Your task to perform on an android device: turn off picture-in-picture Image 0: 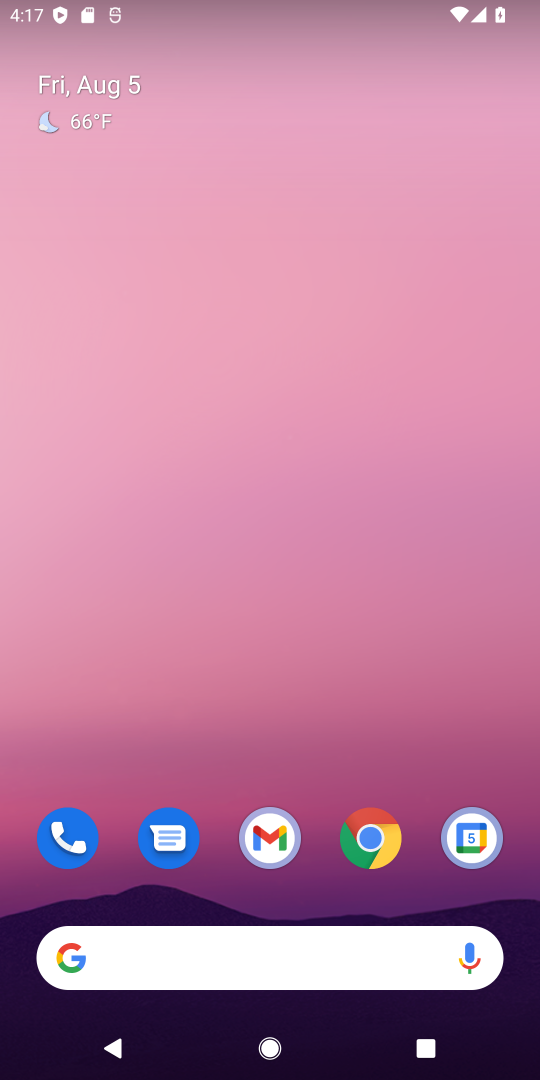
Step 0: drag from (369, 925) to (365, 214)
Your task to perform on an android device: turn off picture-in-picture Image 1: 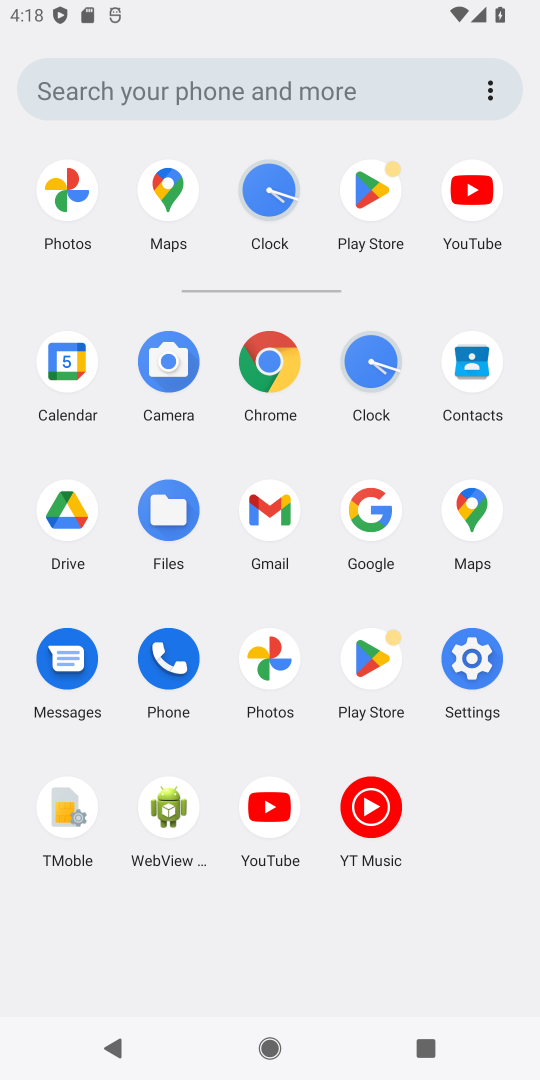
Step 1: click (463, 646)
Your task to perform on an android device: turn off picture-in-picture Image 2: 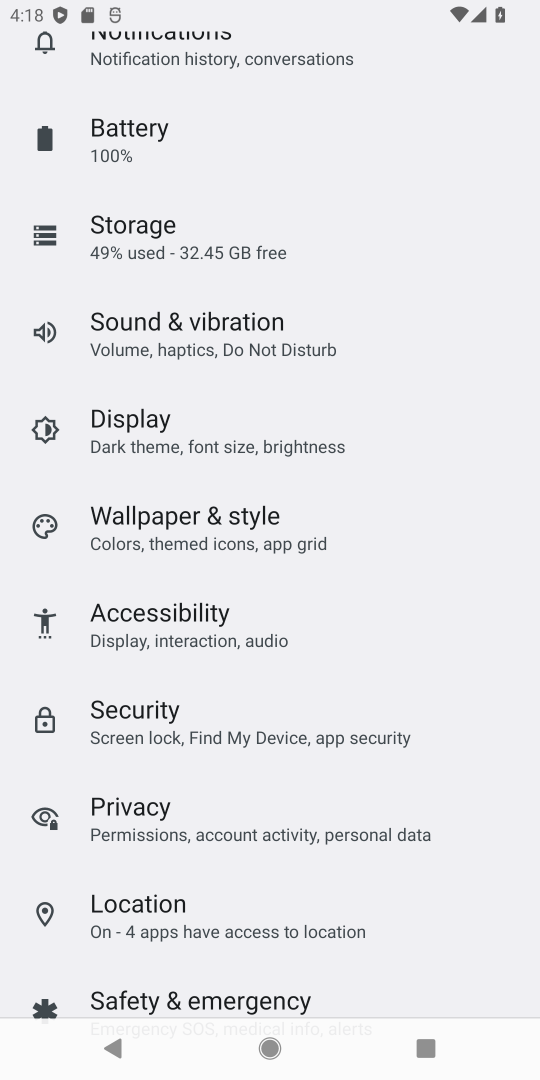
Step 2: drag from (197, 169) to (220, 1063)
Your task to perform on an android device: turn off picture-in-picture Image 3: 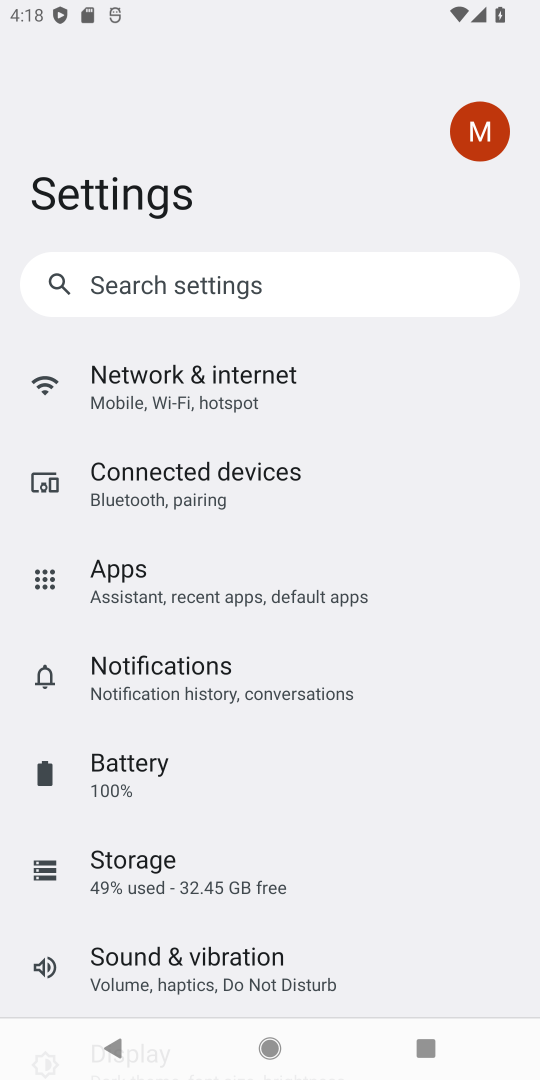
Step 3: click (224, 636)
Your task to perform on an android device: turn off picture-in-picture Image 4: 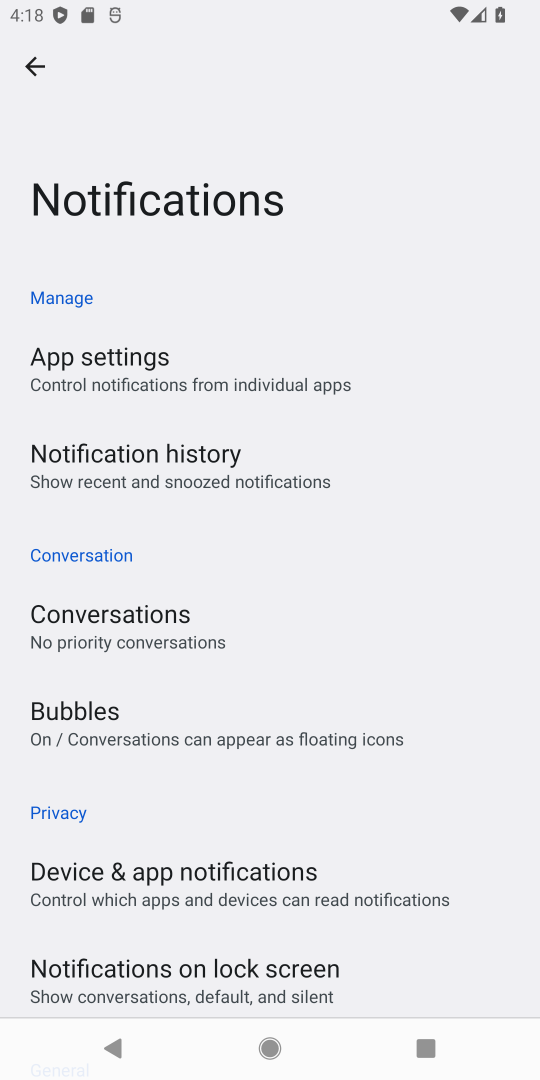
Step 4: click (180, 481)
Your task to perform on an android device: turn off picture-in-picture Image 5: 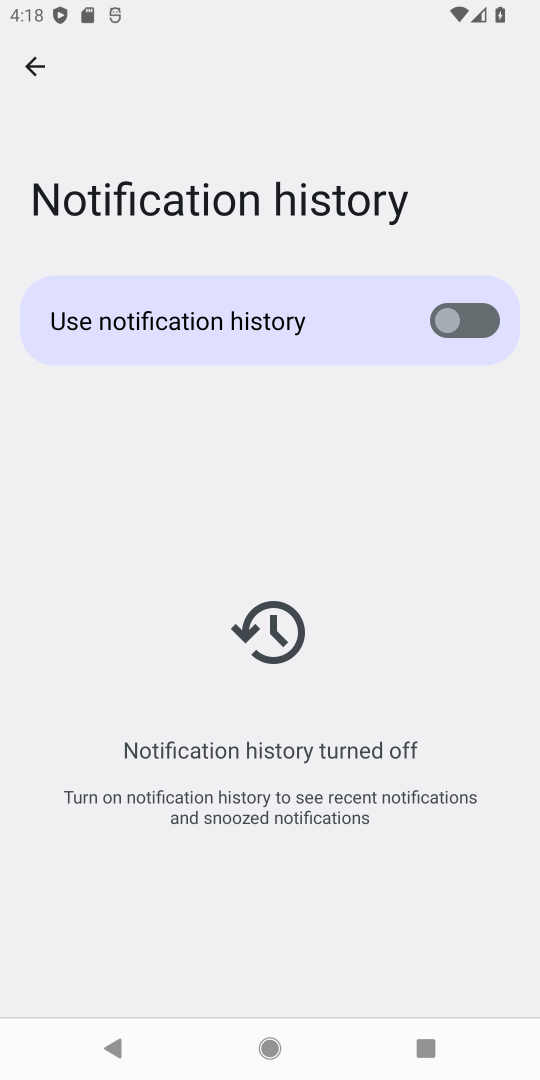
Step 5: click (17, 58)
Your task to perform on an android device: turn off picture-in-picture Image 6: 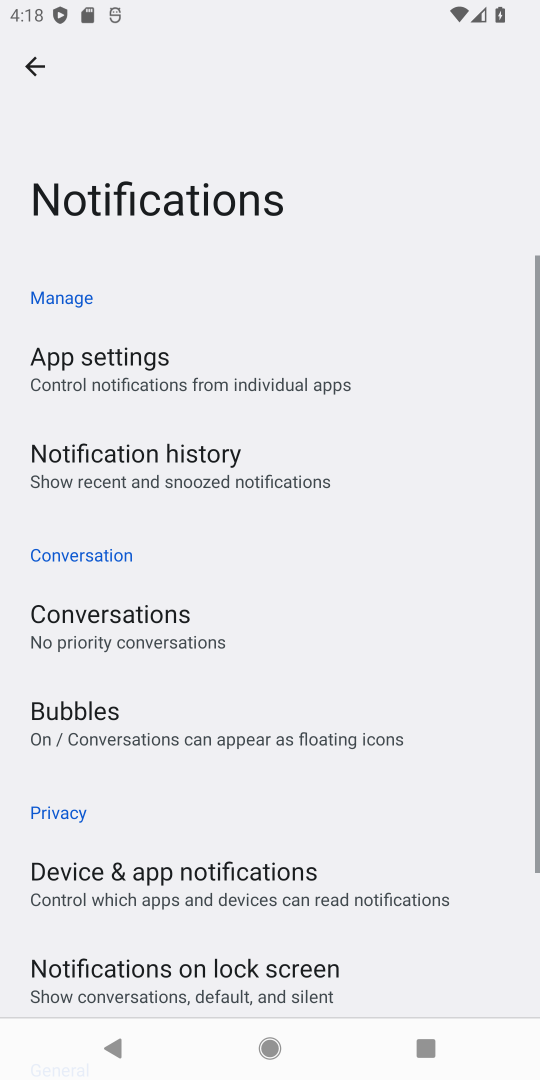
Step 6: drag from (261, 848) to (280, 467)
Your task to perform on an android device: turn off picture-in-picture Image 7: 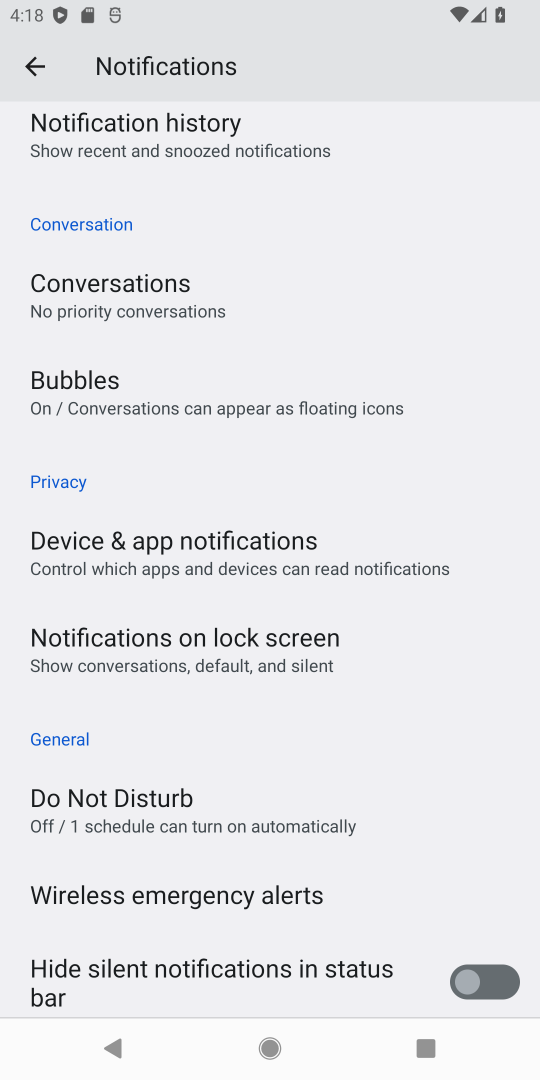
Step 7: click (266, 651)
Your task to perform on an android device: turn off picture-in-picture Image 8: 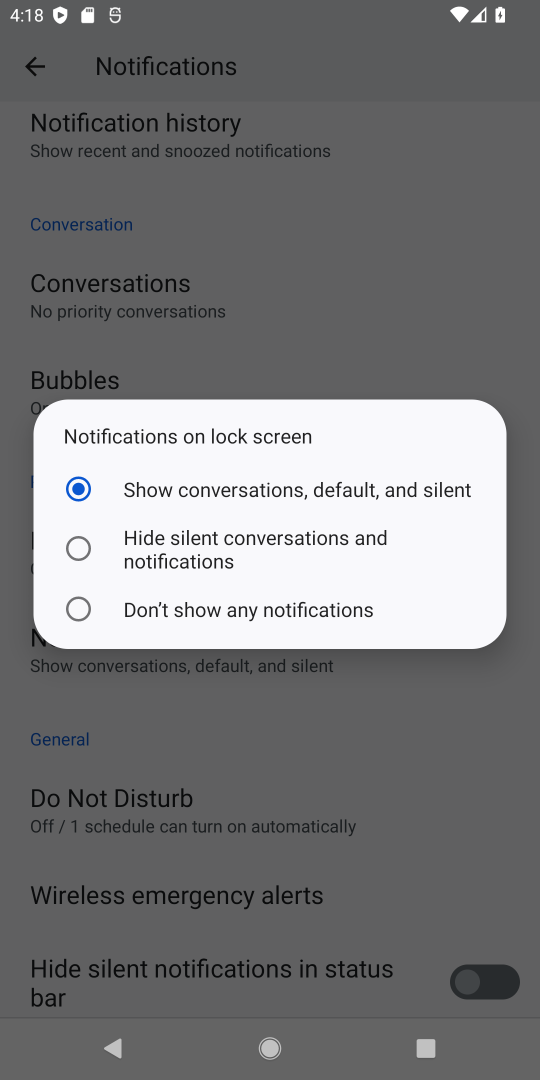
Step 8: click (280, 303)
Your task to perform on an android device: turn off picture-in-picture Image 9: 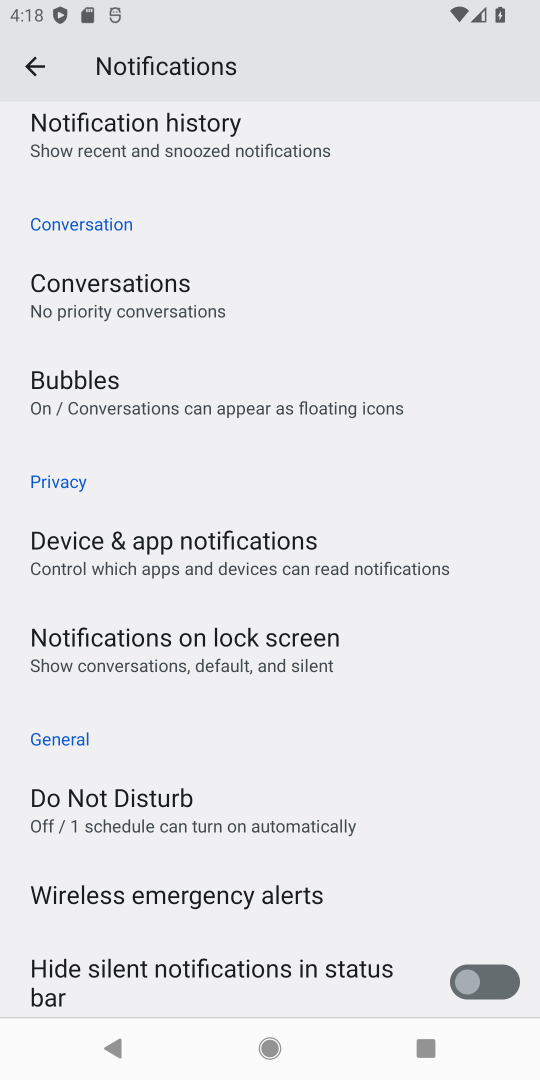
Step 9: drag from (260, 212) to (264, 597)
Your task to perform on an android device: turn off picture-in-picture Image 10: 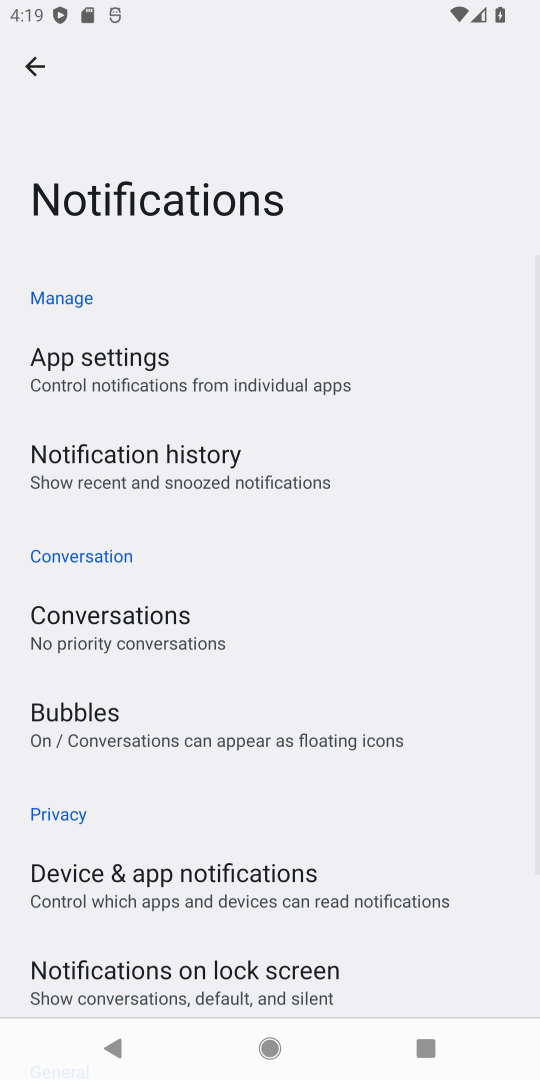
Step 10: click (182, 370)
Your task to perform on an android device: turn off picture-in-picture Image 11: 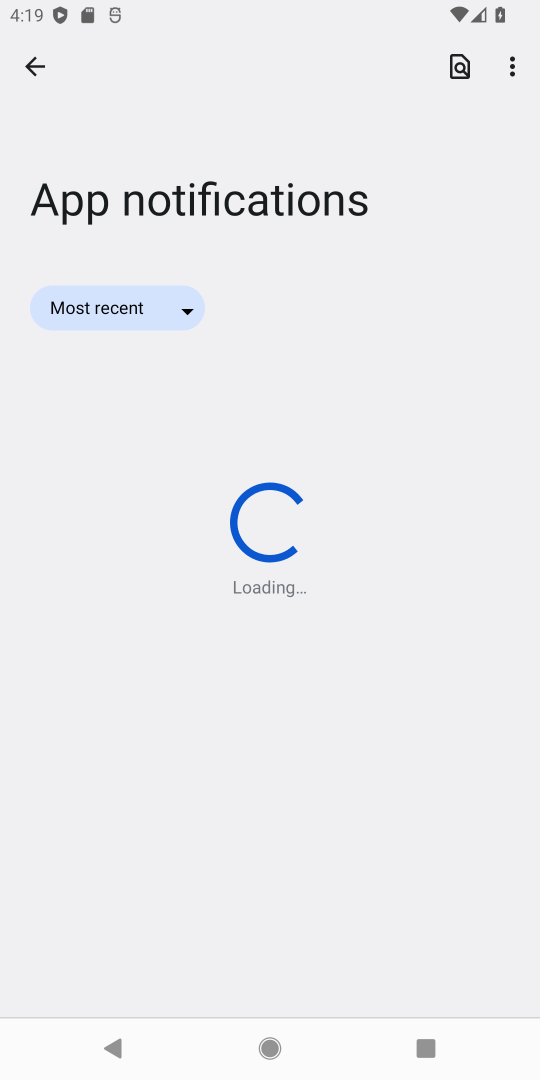
Step 11: drag from (259, 911) to (319, 243)
Your task to perform on an android device: turn off picture-in-picture Image 12: 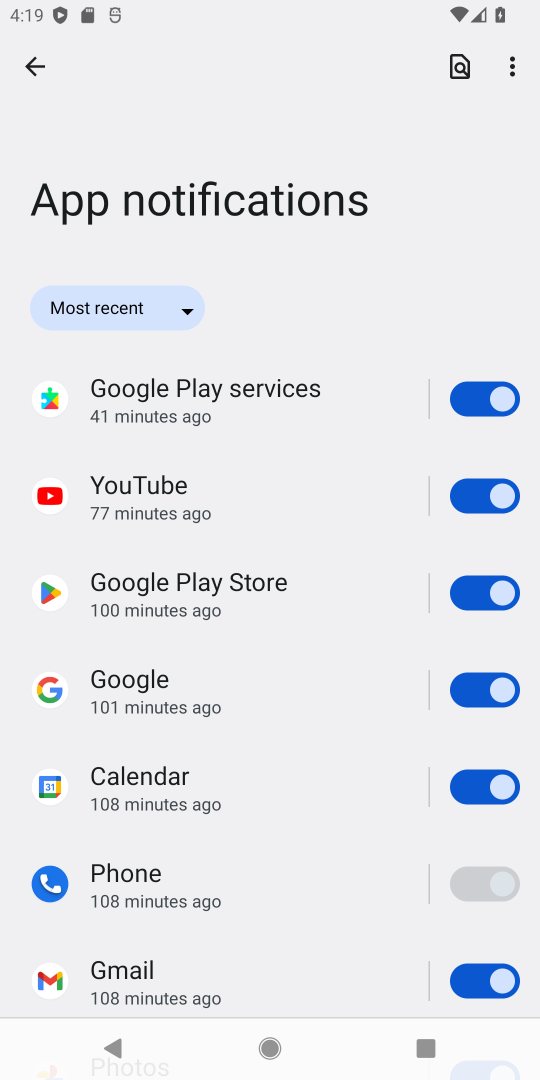
Step 12: click (36, 52)
Your task to perform on an android device: turn off picture-in-picture Image 13: 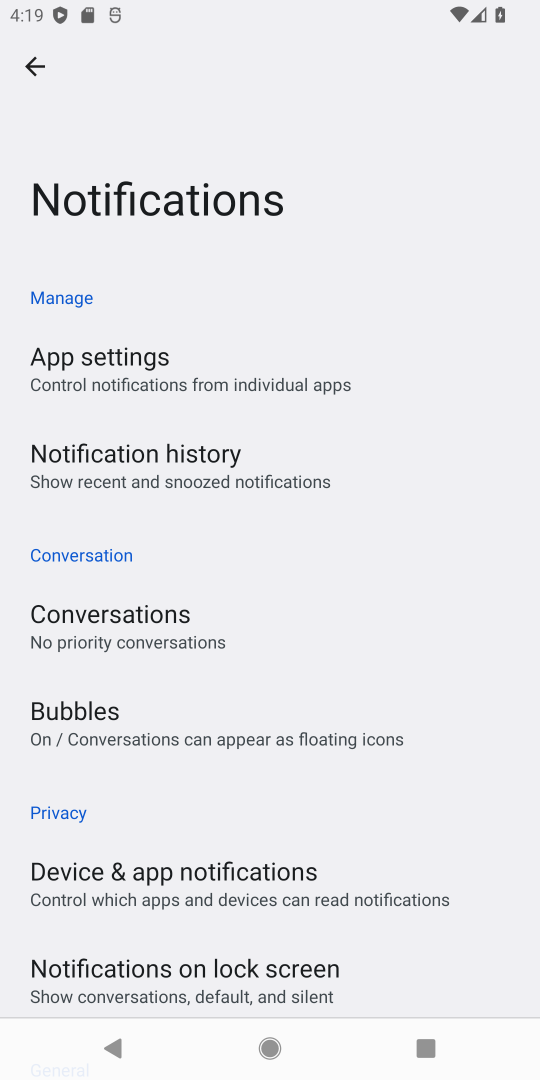
Step 13: click (35, 70)
Your task to perform on an android device: turn off picture-in-picture Image 14: 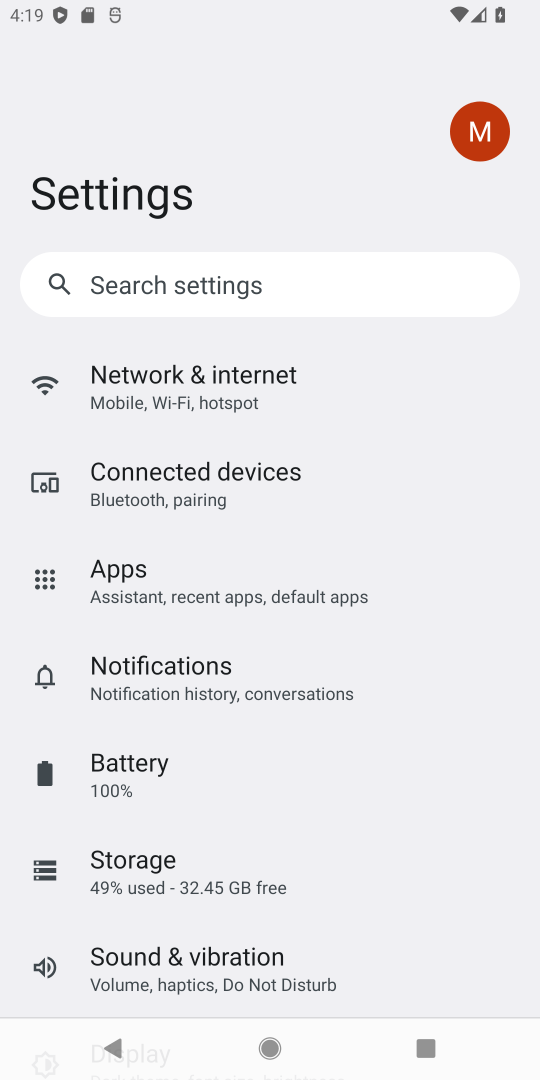
Step 14: click (166, 574)
Your task to perform on an android device: turn off picture-in-picture Image 15: 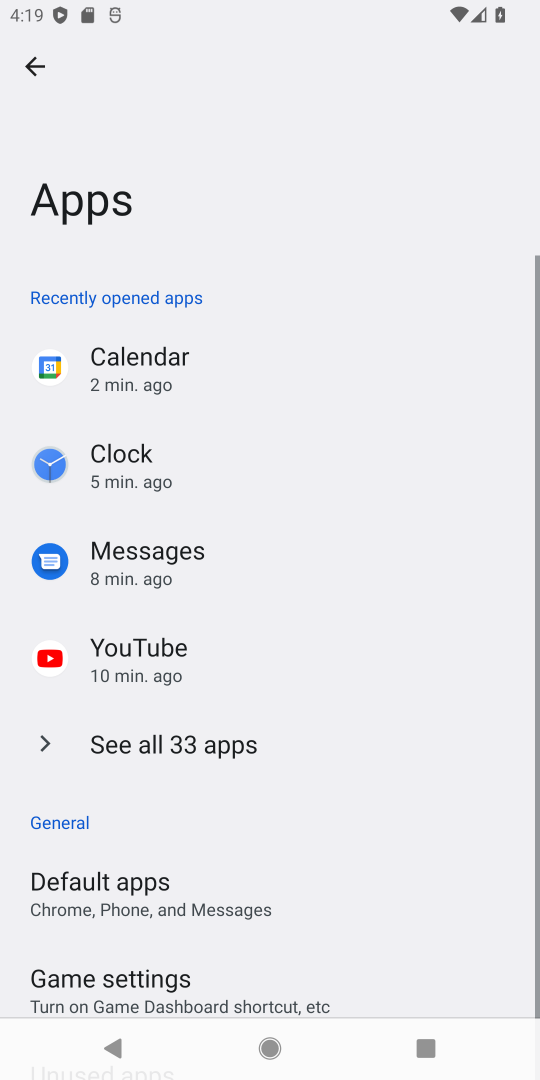
Step 15: drag from (298, 907) to (335, 362)
Your task to perform on an android device: turn off picture-in-picture Image 16: 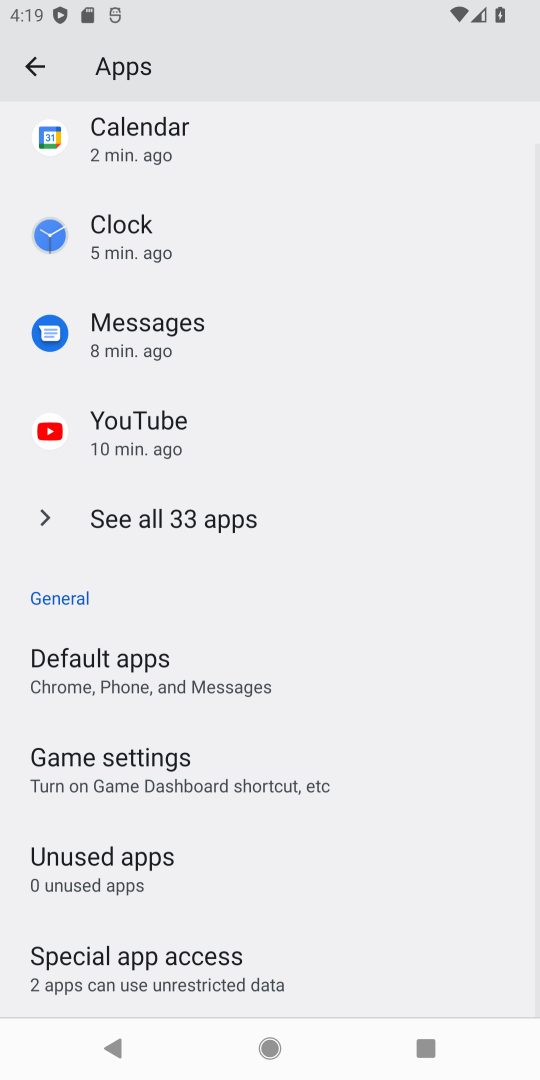
Step 16: click (222, 980)
Your task to perform on an android device: turn off picture-in-picture Image 17: 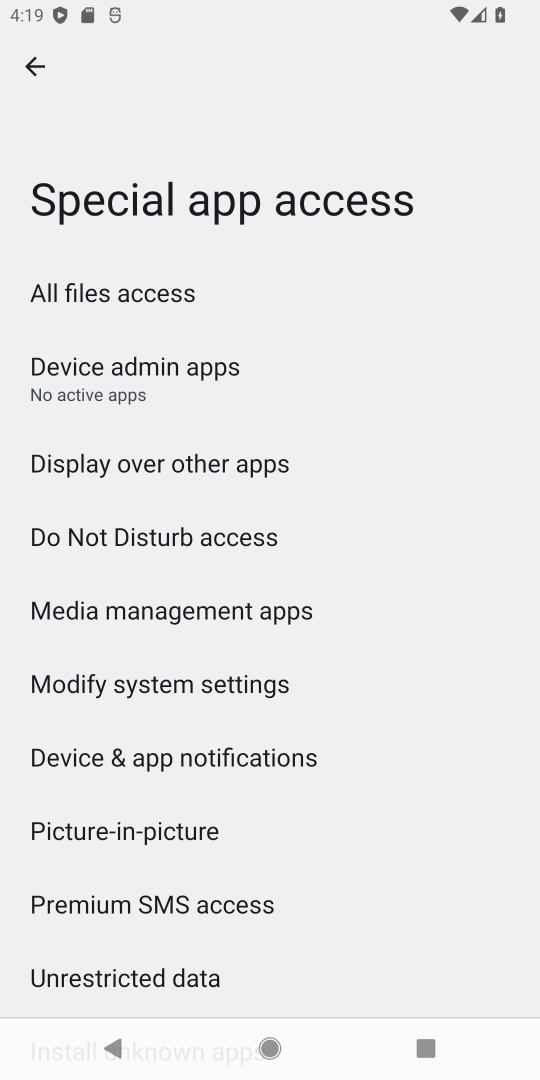
Step 17: click (201, 819)
Your task to perform on an android device: turn off picture-in-picture Image 18: 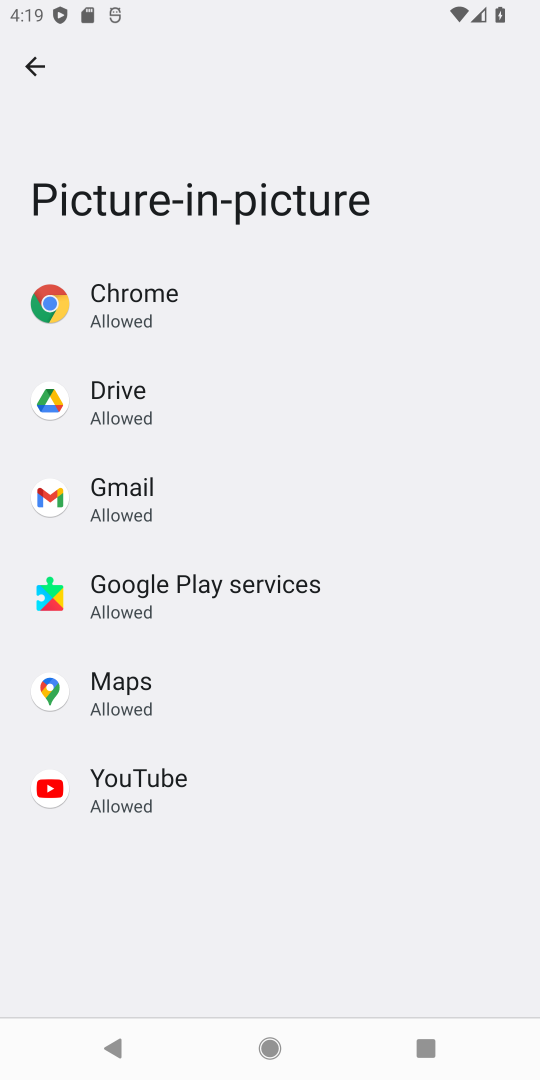
Step 18: click (99, 776)
Your task to perform on an android device: turn off picture-in-picture Image 19: 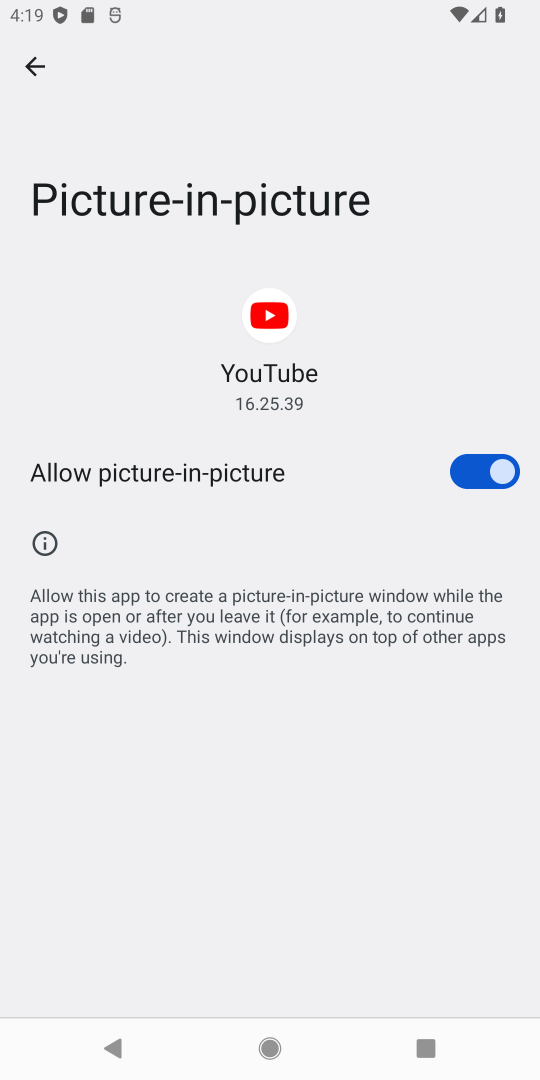
Step 19: click (497, 483)
Your task to perform on an android device: turn off picture-in-picture Image 20: 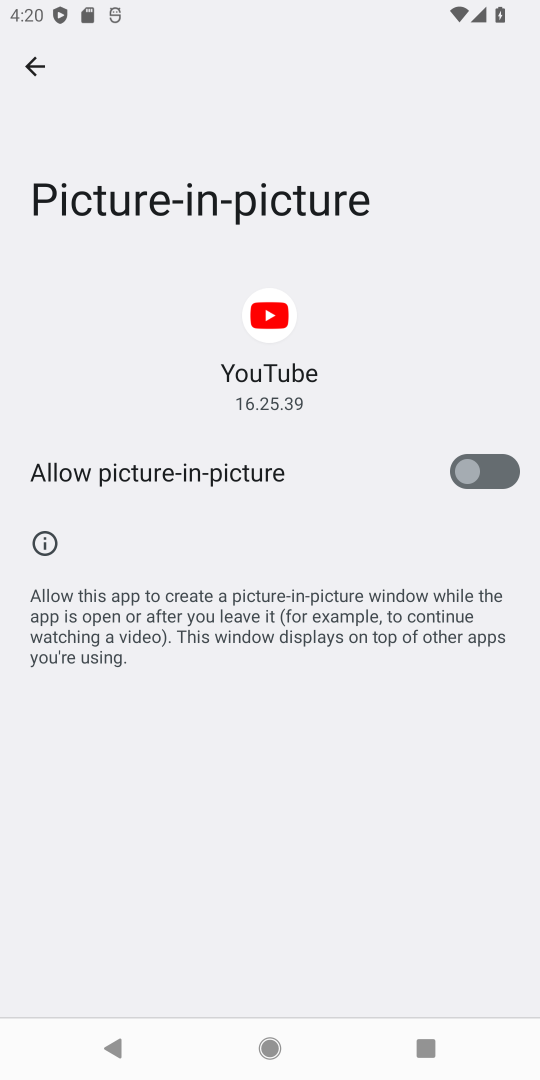
Step 20: task complete